Your task to perform on an android device: Open notification settings Image 0: 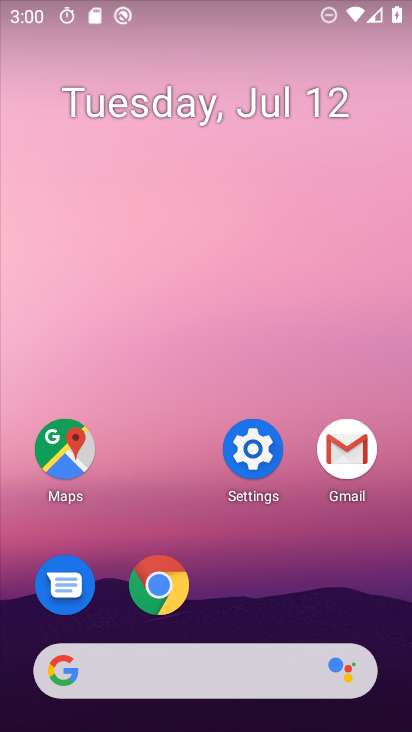
Step 0: click (248, 459)
Your task to perform on an android device: Open notification settings Image 1: 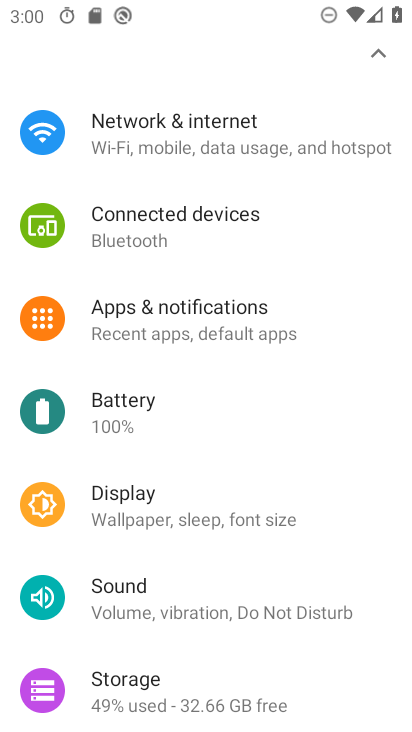
Step 1: click (188, 312)
Your task to perform on an android device: Open notification settings Image 2: 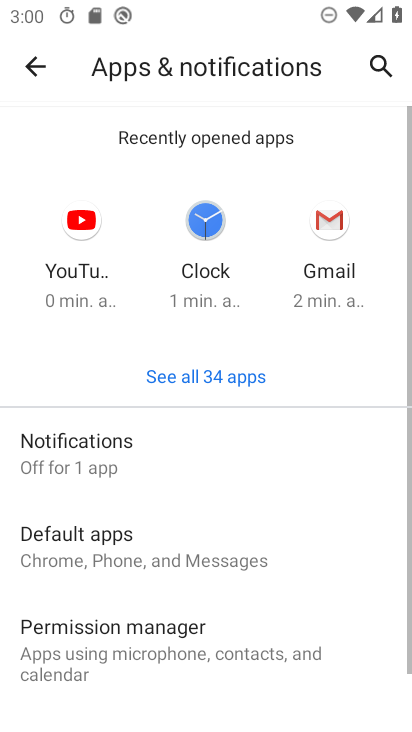
Step 2: click (77, 439)
Your task to perform on an android device: Open notification settings Image 3: 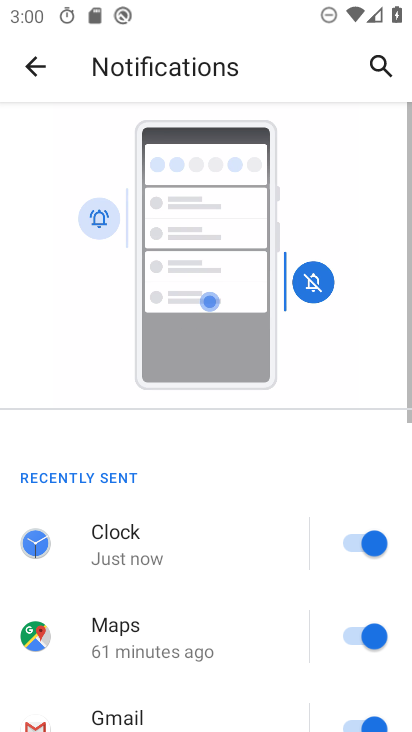
Step 3: drag from (233, 665) to (218, 213)
Your task to perform on an android device: Open notification settings Image 4: 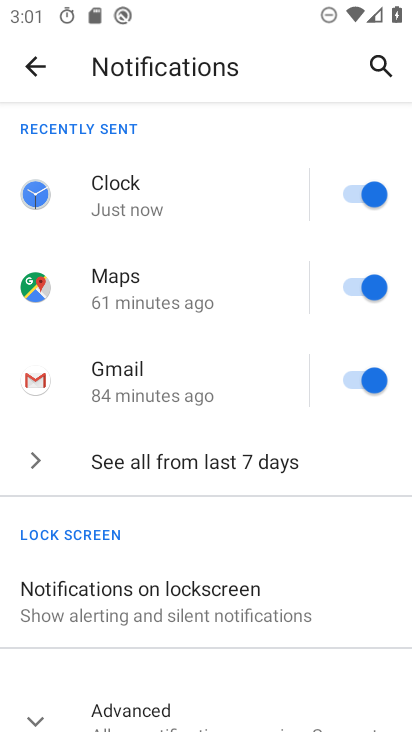
Step 4: click (32, 719)
Your task to perform on an android device: Open notification settings Image 5: 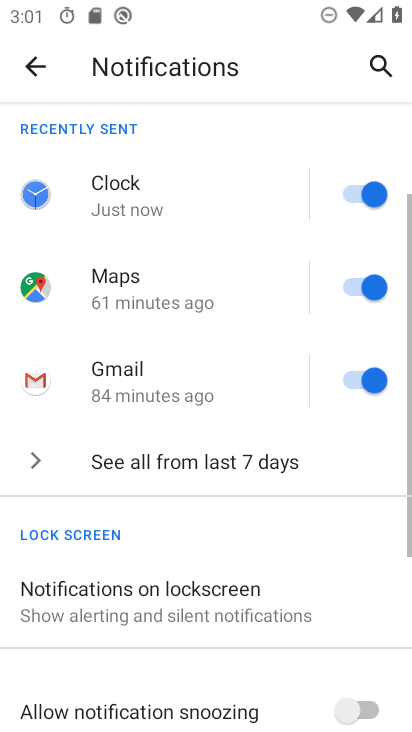
Step 5: task complete